Your task to perform on an android device: refresh tabs in the chrome app Image 0: 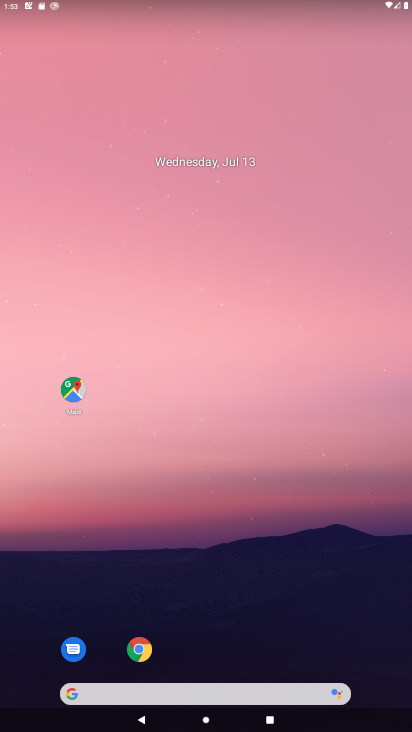
Step 0: press home button
Your task to perform on an android device: refresh tabs in the chrome app Image 1: 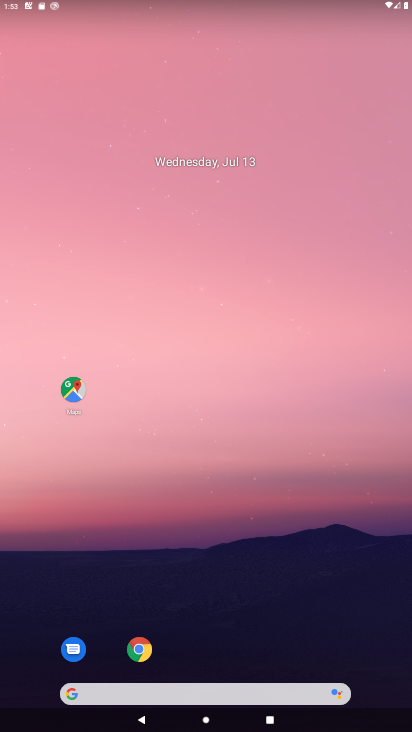
Step 1: click (134, 643)
Your task to perform on an android device: refresh tabs in the chrome app Image 2: 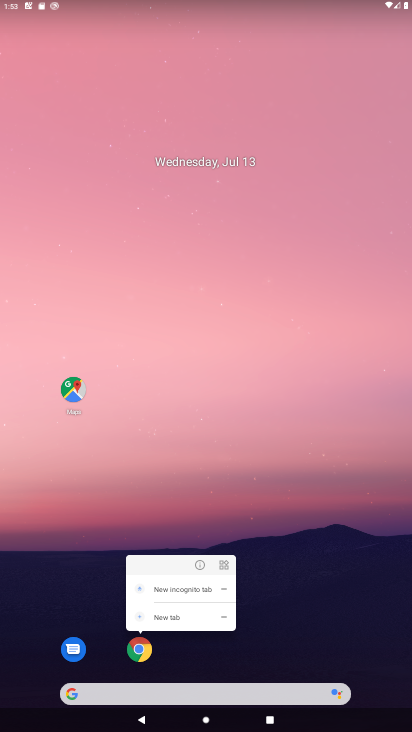
Step 2: click (134, 643)
Your task to perform on an android device: refresh tabs in the chrome app Image 3: 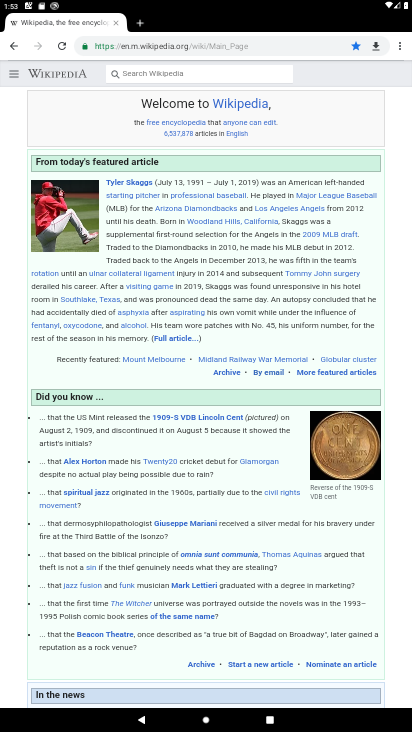
Step 3: drag from (401, 50) to (344, 0)
Your task to perform on an android device: refresh tabs in the chrome app Image 4: 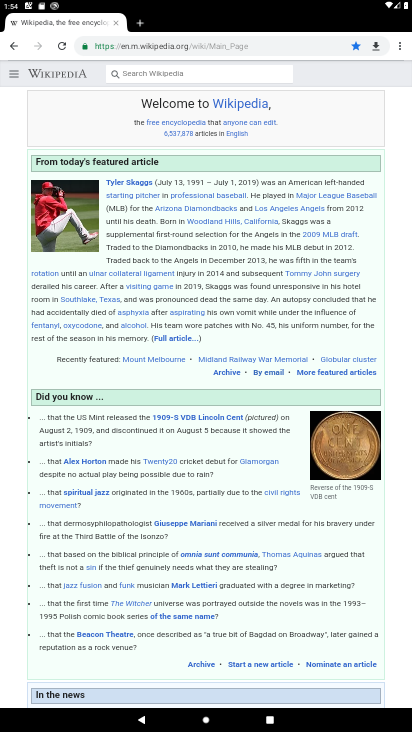
Step 4: click (60, 41)
Your task to perform on an android device: refresh tabs in the chrome app Image 5: 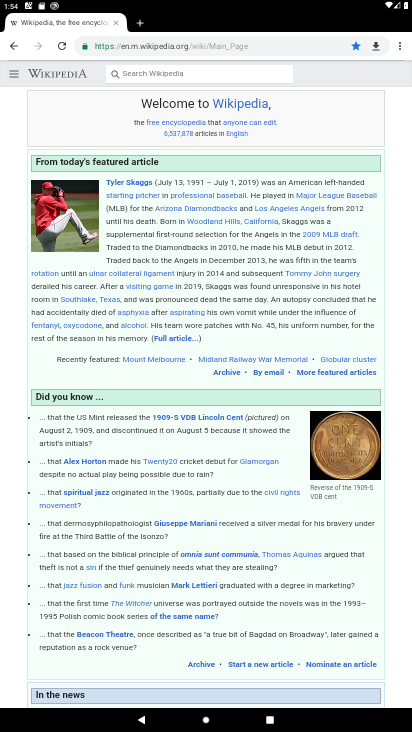
Step 5: task complete